Your task to perform on an android device: Search for Italian restaurants on Maps Image 0: 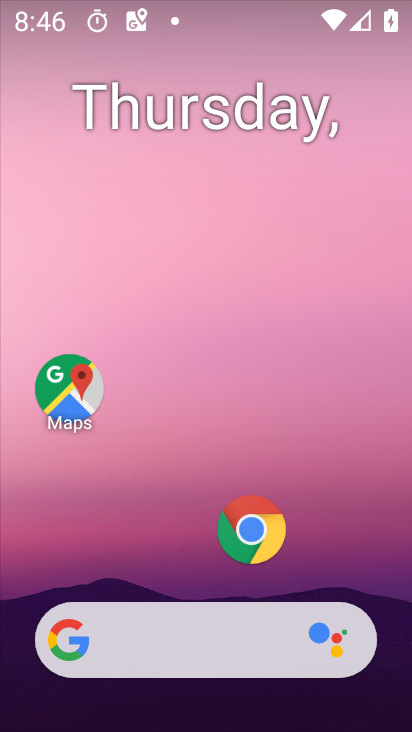
Step 0: click (66, 384)
Your task to perform on an android device: Search for Italian restaurants on Maps Image 1: 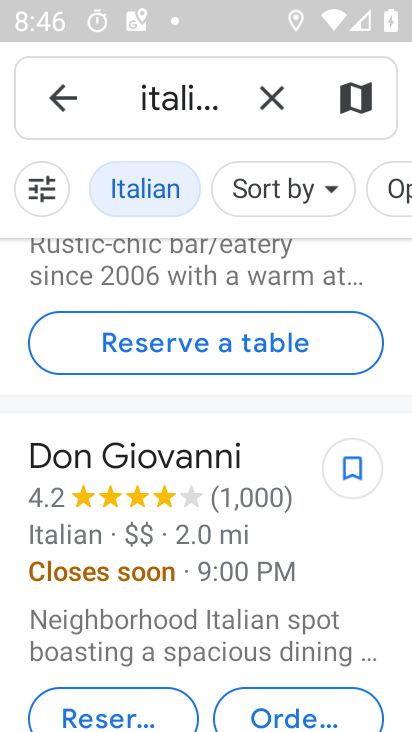
Step 1: drag from (237, 526) to (259, 225)
Your task to perform on an android device: Search for Italian restaurants on Maps Image 2: 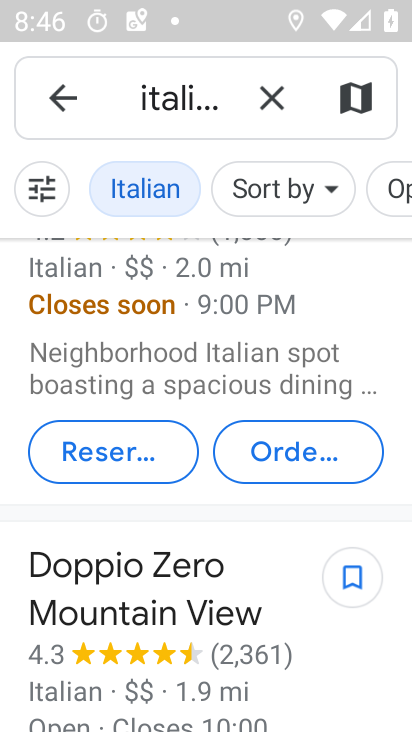
Step 2: drag from (155, 693) to (190, 269)
Your task to perform on an android device: Search for Italian restaurants on Maps Image 3: 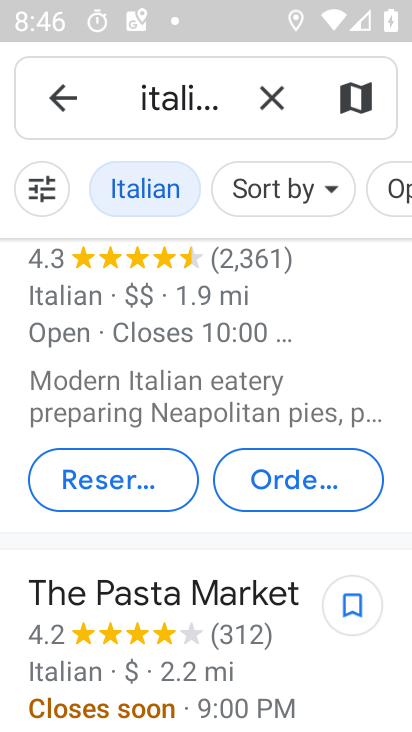
Step 3: drag from (242, 672) to (257, 238)
Your task to perform on an android device: Search for Italian restaurants on Maps Image 4: 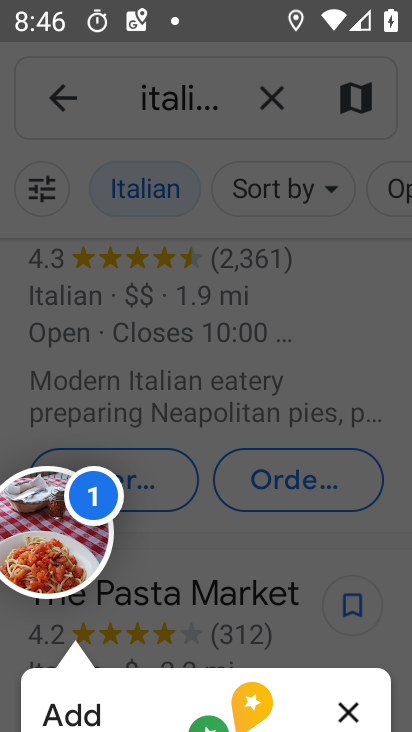
Step 4: drag from (45, 558) to (389, 721)
Your task to perform on an android device: Search for Italian restaurants on Maps Image 5: 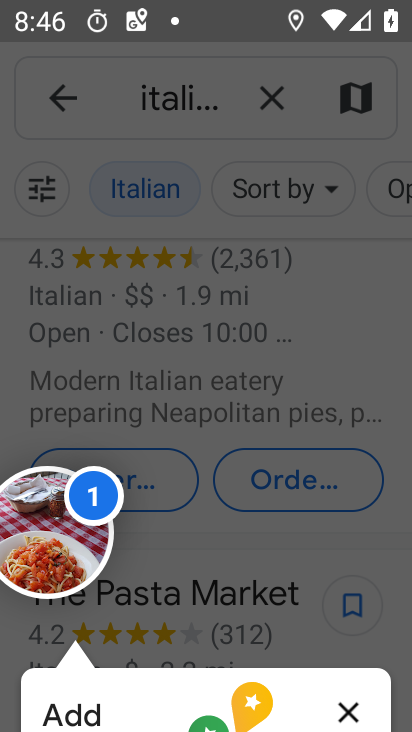
Step 5: drag from (45, 546) to (310, 728)
Your task to perform on an android device: Search for Italian restaurants on Maps Image 6: 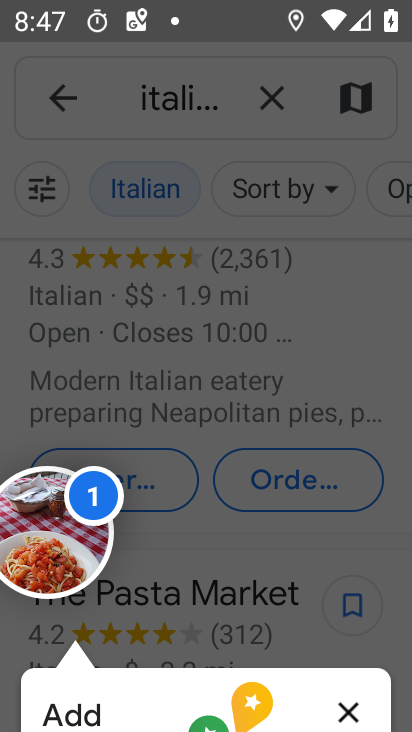
Step 6: click (350, 712)
Your task to perform on an android device: Search for Italian restaurants on Maps Image 7: 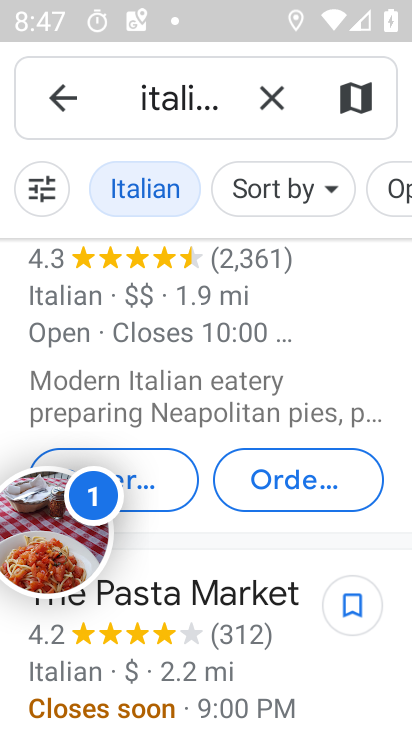
Step 7: drag from (57, 548) to (220, 723)
Your task to perform on an android device: Search for Italian restaurants on Maps Image 8: 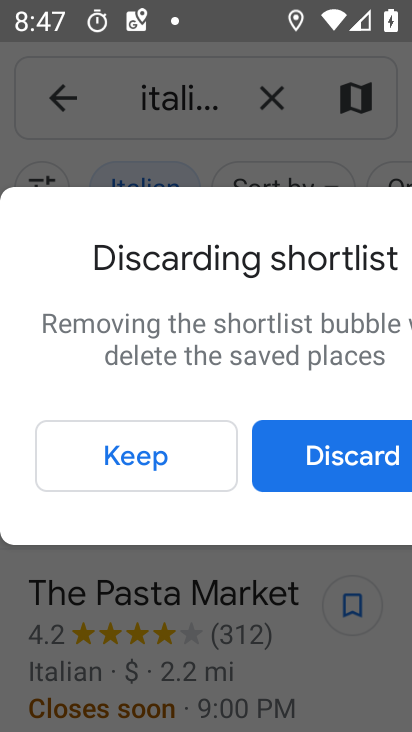
Step 8: click (337, 442)
Your task to perform on an android device: Search for Italian restaurants on Maps Image 9: 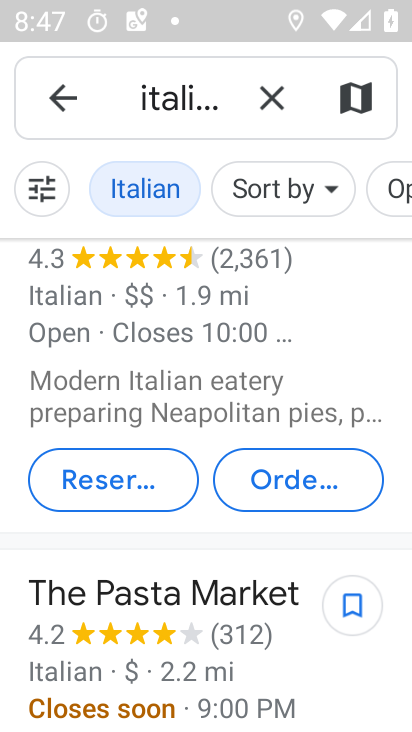
Step 9: task complete